Your task to perform on an android device: choose inbox layout in the gmail app Image 0: 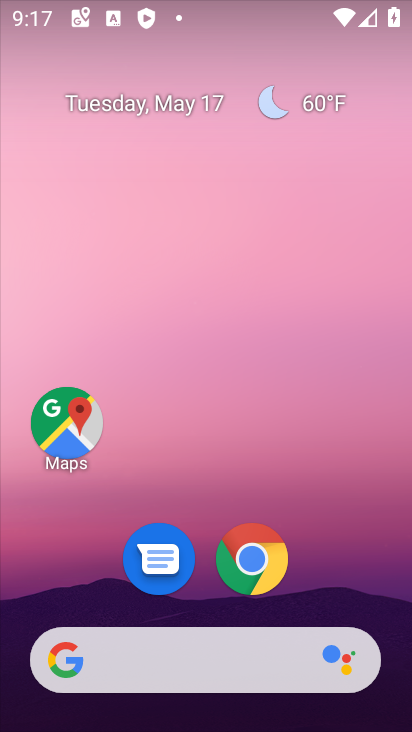
Step 0: drag from (261, 524) to (285, 154)
Your task to perform on an android device: choose inbox layout in the gmail app Image 1: 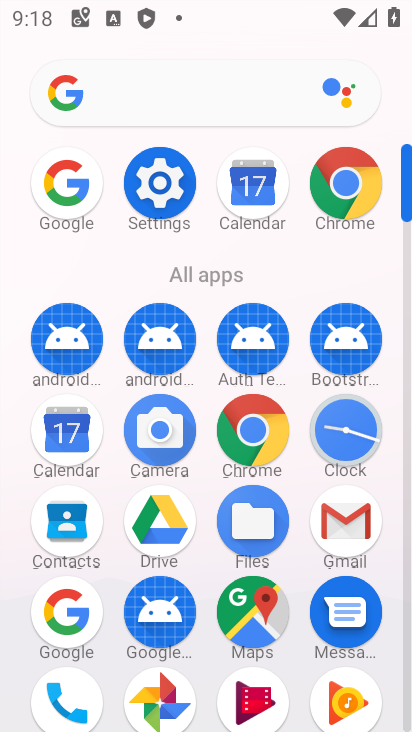
Step 1: click (354, 530)
Your task to perform on an android device: choose inbox layout in the gmail app Image 2: 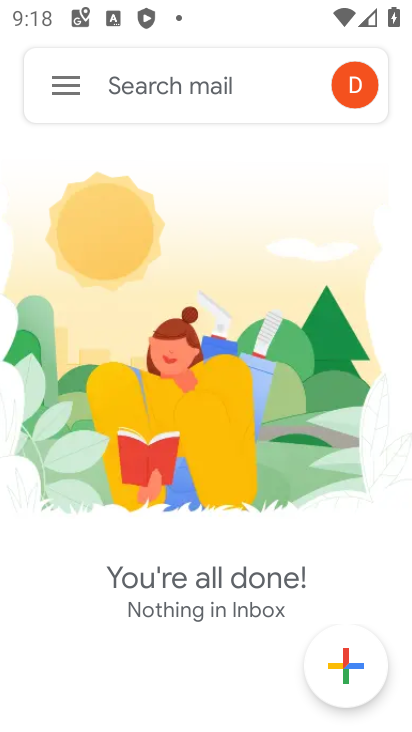
Step 2: click (70, 98)
Your task to perform on an android device: choose inbox layout in the gmail app Image 3: 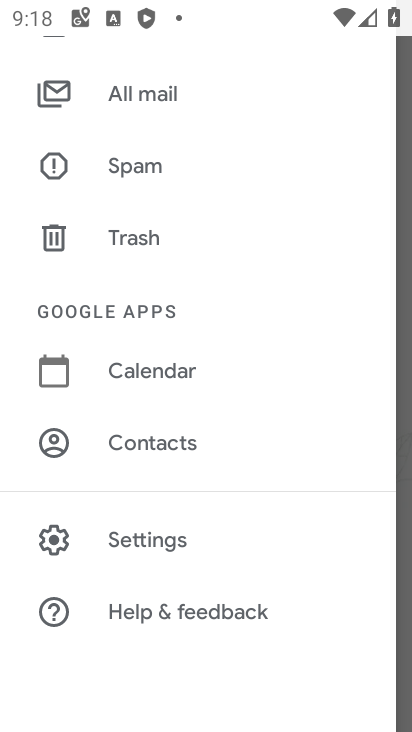
Step 3: click (143, 543)
Your task to perform on an android device: choose inbox layout in the gmail app Image 4: 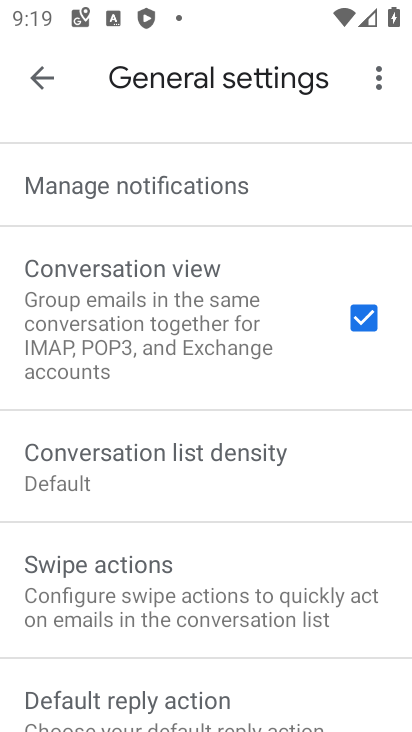
Step 4: task complete